Your task to perform on an android device: open chrome and create a bookmark for the current page Image 0: 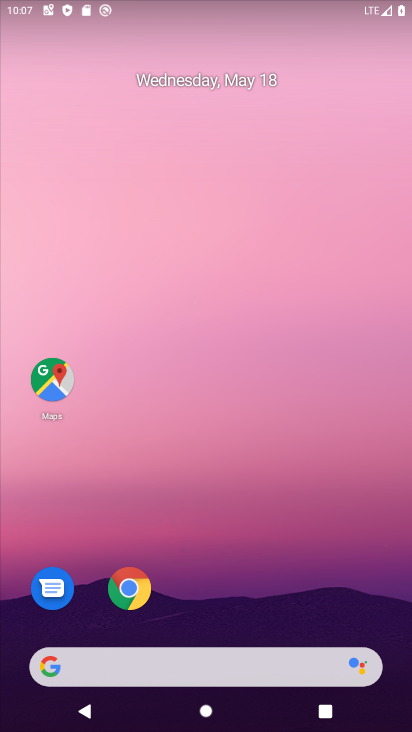
Step 0: click (137, 598)
Your task to perform on an android device: open chrome and create a bookmark for the current page Image 1: 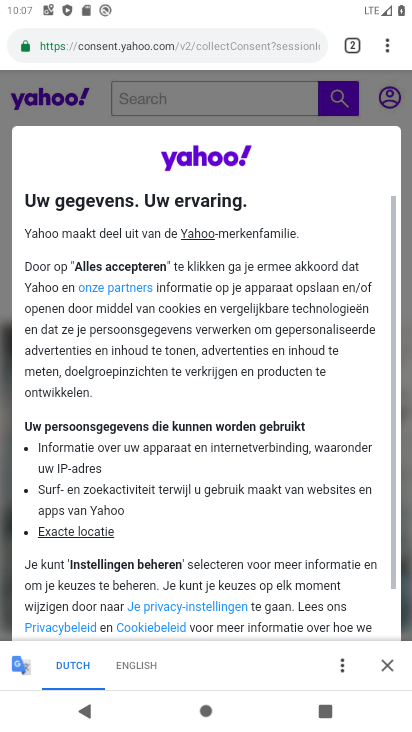
Step 1: click (389, 43)
Your task to perform on an android device: open chrome and create a bookmark for the current page Image 2: 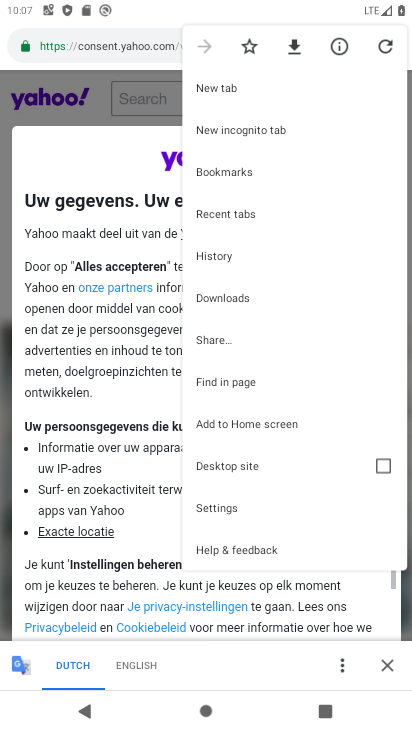
Step 2: click (248, 48)
Your task to perform on an android device: open chrome and create a bookmark for the current page Image 3: 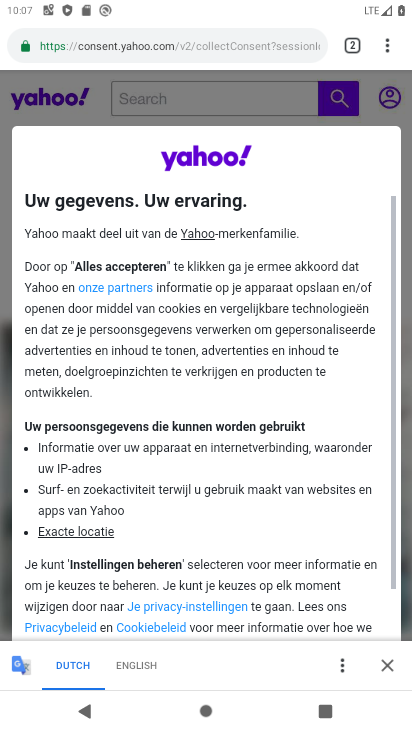
Step 3: task complete